Your task to perform on an android device: stop showing notifications on the lock screen Image 0: 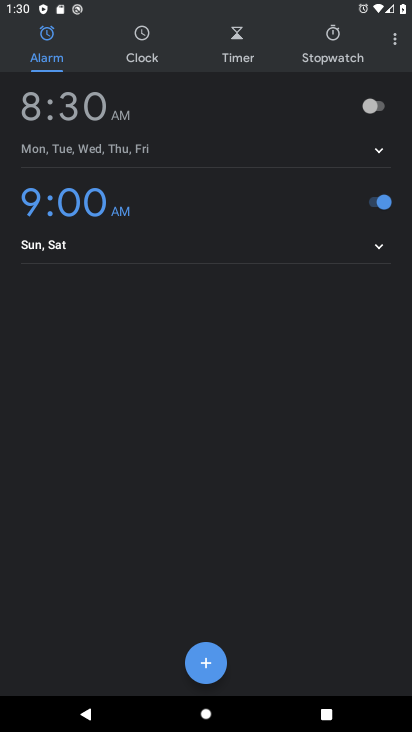
Step 0: press home button
Your task to perform on an android device: stop showing notifications on the lock screen Image 1: 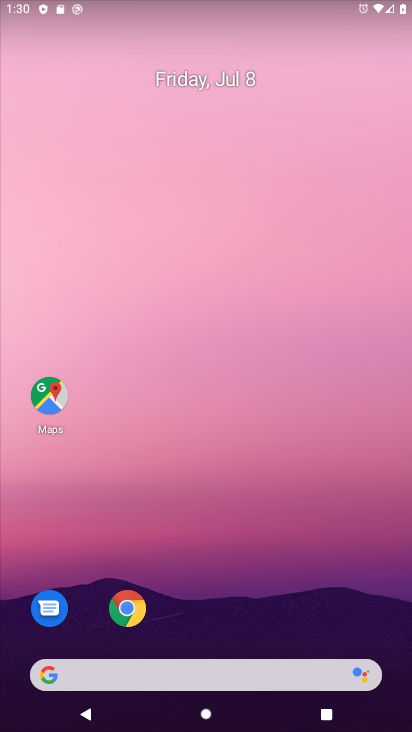
Step 1: drag from (239, 614) to (312, 120)
Your task to perform on an android device: stop showing notifications on the lock screen Image 2: 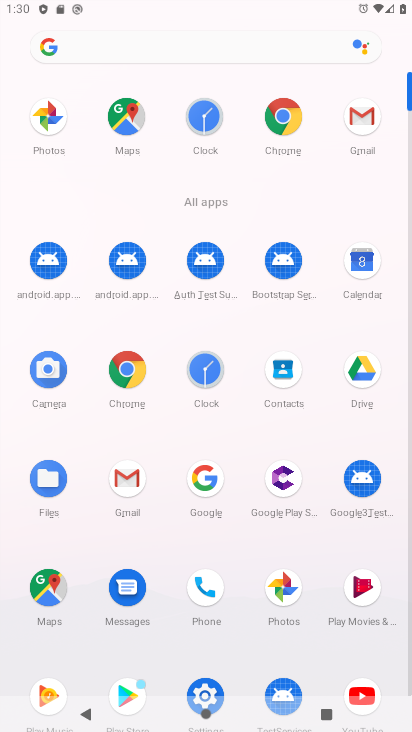
Step 2: click (211, 689)
Your task to perform on an android device: stop showing notifications on the lock screen Image 3: 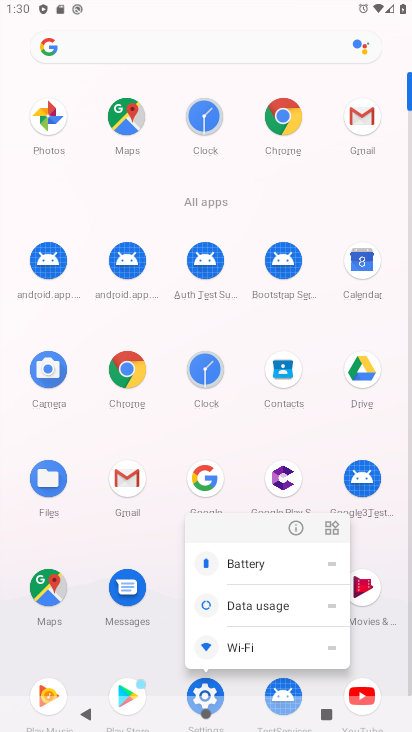
Step 3: click (204, 681)
Your task to perform on an android device: stop showing notifications on the lock screen Image 4: 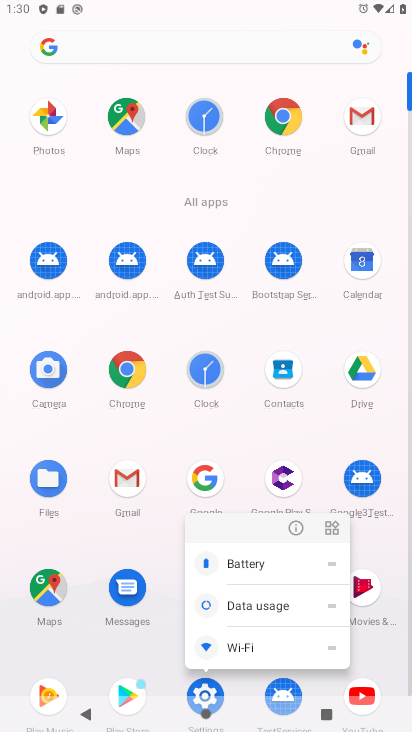
Step 4: click (207, 691)
Your task to perform on an android device: stop showing notifications on the lock screen Image 5: 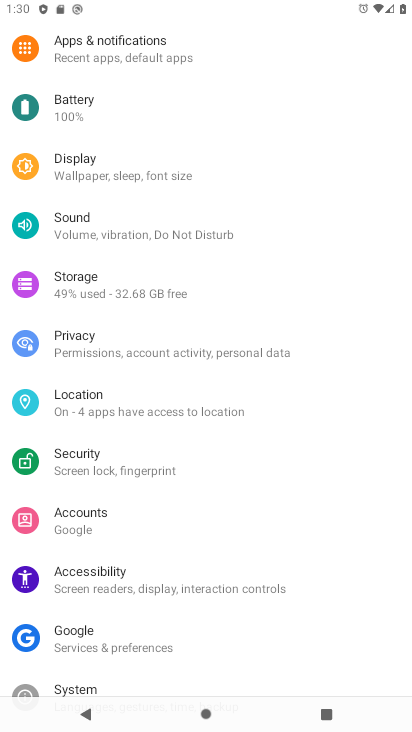
Step 5: click (153, 51)
Your task to perform on an android device: stop showing notifications on the lock screen Image 6: 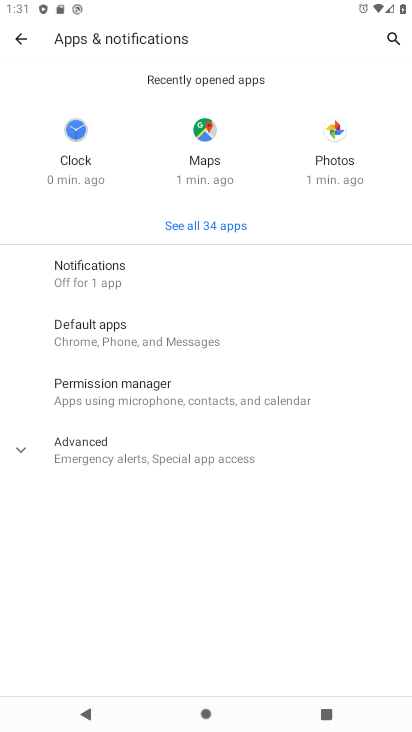
Step 6: click (168, 281)
Your task to perform on an android device: stop showing notifications on the lock screen Image 7: 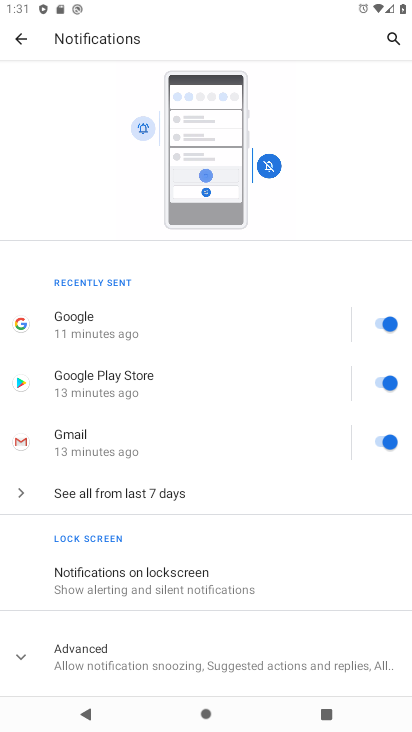
Step 7: click (232, 582)
Your task to perform on an android device: stop showing notifications on the lock screen Image 8: 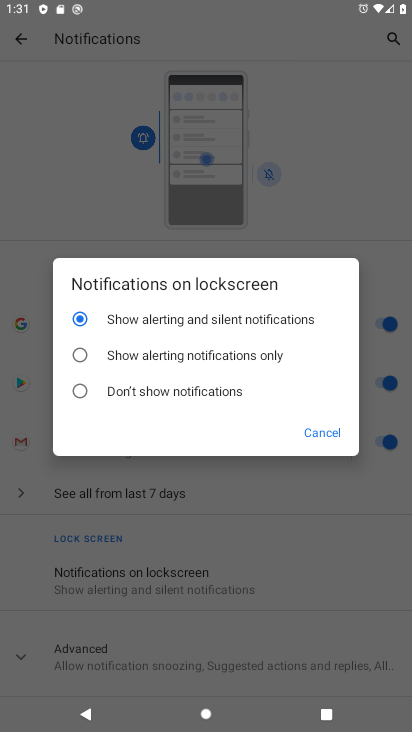
Step 8: click (181, 396)
Your task to perform on an android device: stop showing notifications on the lock screen Image 9: 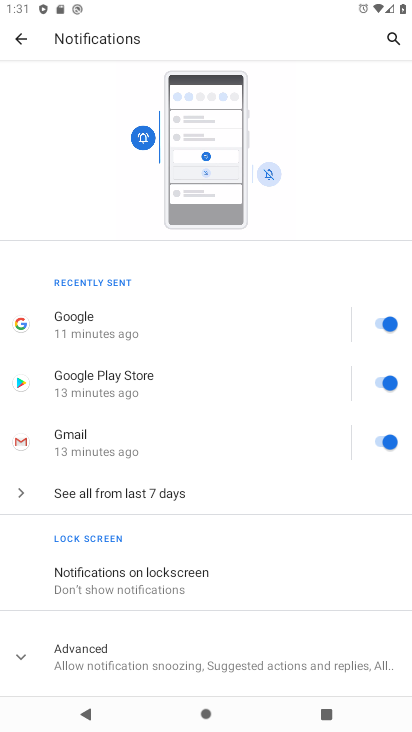
Step 9: task complete